Your task to perform on an android device: toggle pop-ups in chrome Image 0: 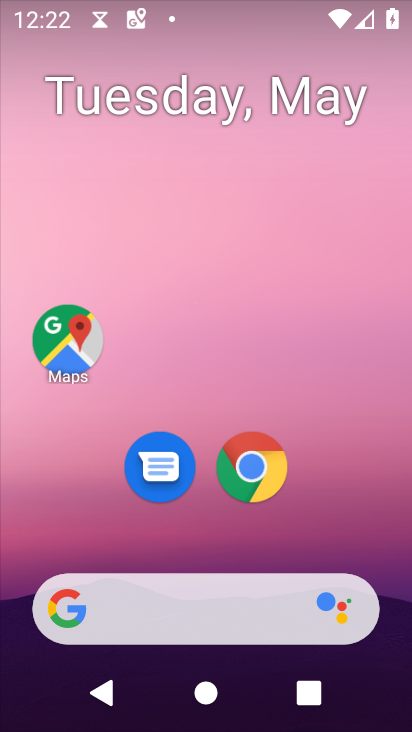
Step 0: click (262, 458)
Your task to perform on an android device: toggle pop-ups in chrome Image 1: 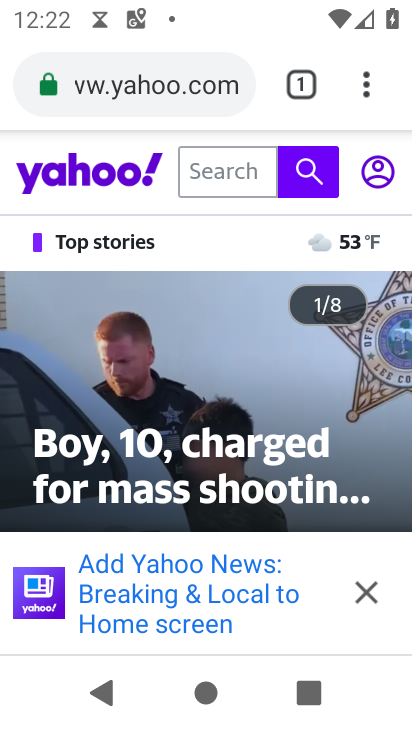
Step 1: click (372, 84)
Your task to perform on an android device: toggle pop-ups in chrome Image 2: 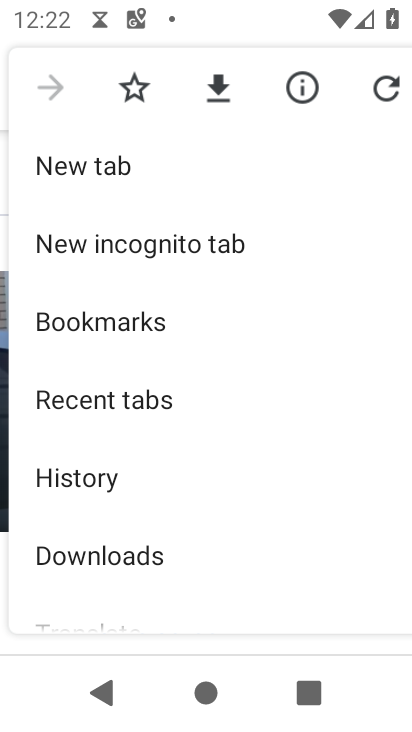
Step 2: drag from (193, 539) to (226, 222)
Your task to perform on an android device: toggle pop-ups in chrome Image 3: 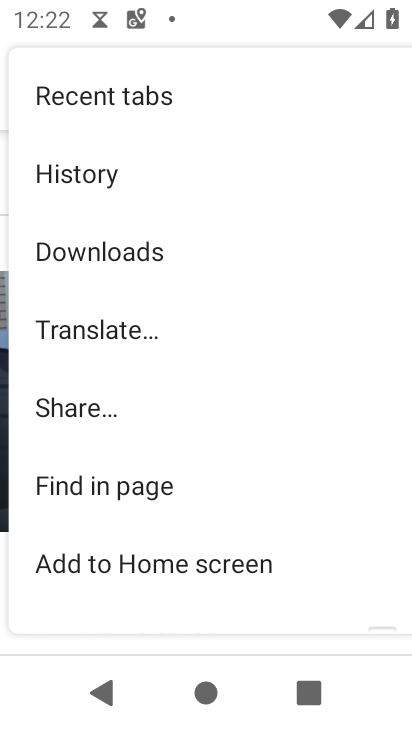
Step 3: drag from (170, 538) to (225, 179)
Your task to perform on an android device: toggle pop-ups in chrome Image 4: 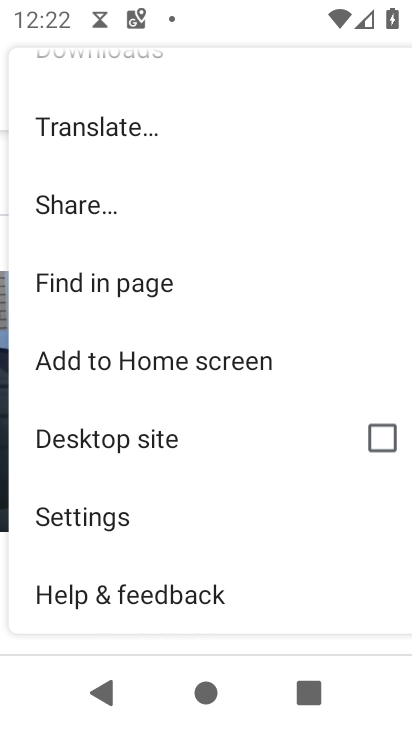
Step 4: click (96, 509)
Your task to perform on an android device: toggle pop-ups in chrome Image 5: 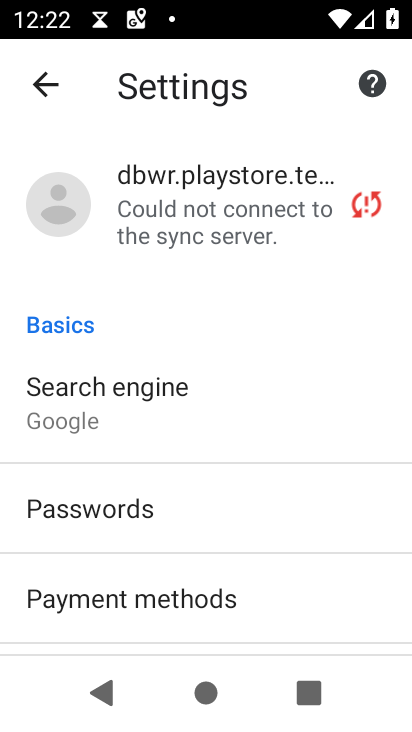
Step 5: drag from (259, 563) to (262, 238)
Your task to perform on an android device: toggle pop-ups in chrome Image 6: 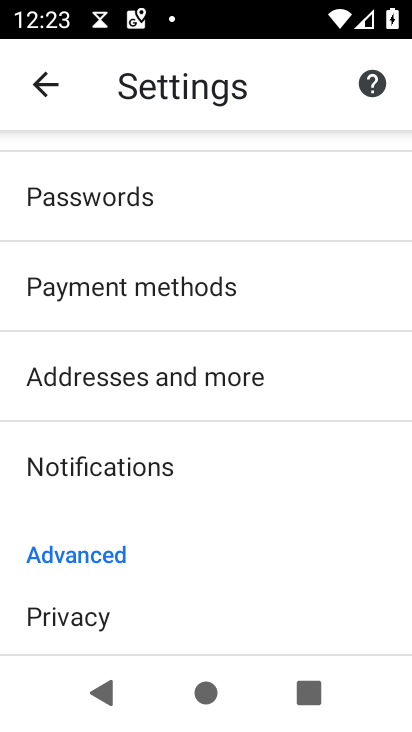
Step 6: drag from (202, 586) to (245, 191)
Your task to perform on an android device: toggle pop-ups in chrome Image 7: 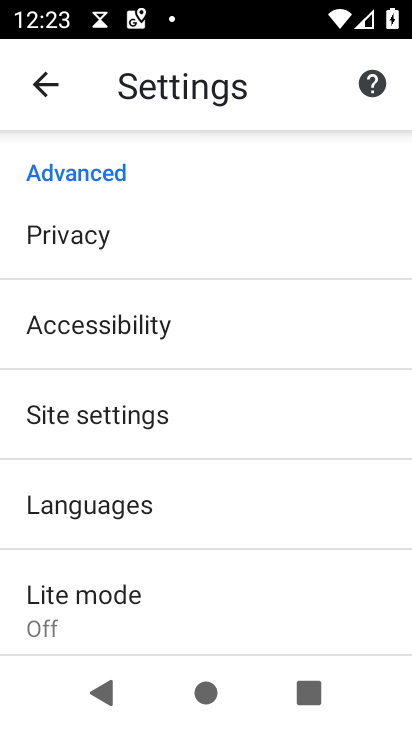
Step 7: click (164, 417)
Your task to perform on an android device: toggle pop-ups in chrome Image 8: 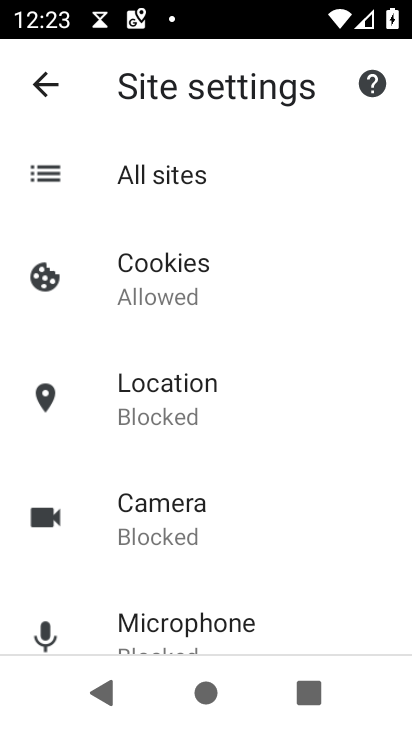
Step 8: drag from (293, 530) to (308, 201)
Your task to perform on an android device: toggle pop-ups in chrome Image 9: 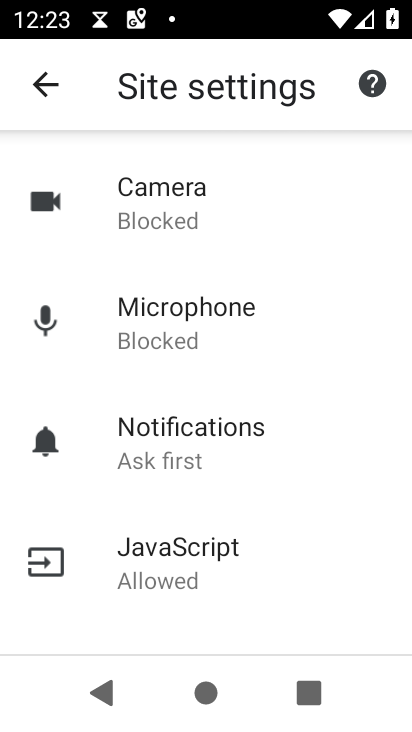
Step 9: drag from (296, 512) to (272, 280)
Your task to perform on an android device: toggle pop-ups in chrome Image 10: 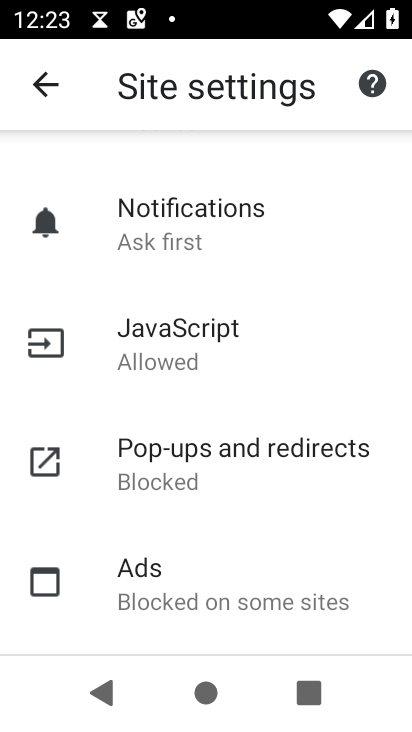
Step 10: click (253, 454)
Your task to perform on an android device: toggle pop-ups in chrome Image 11: 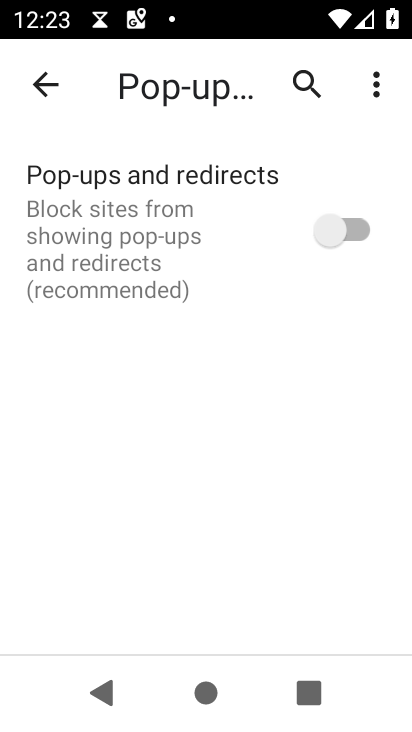
Step 11: click (363, 220)
Your task to perform on an android device: toggle pop-ups in chrome Image 12: 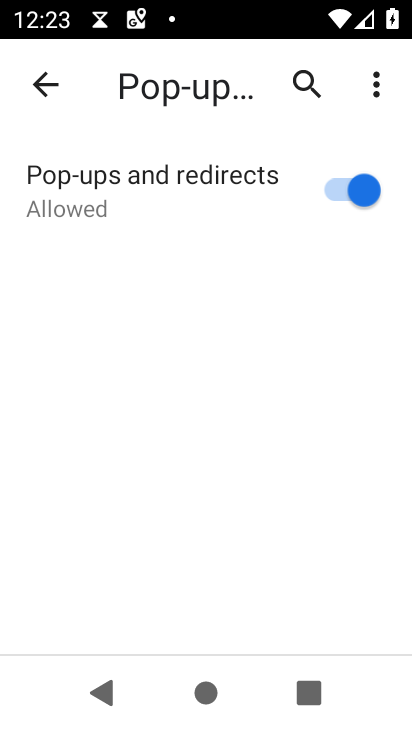
Step 12: task complete